Your task to perform on an android device: Search for the best running shoes on Nike. Image 0: 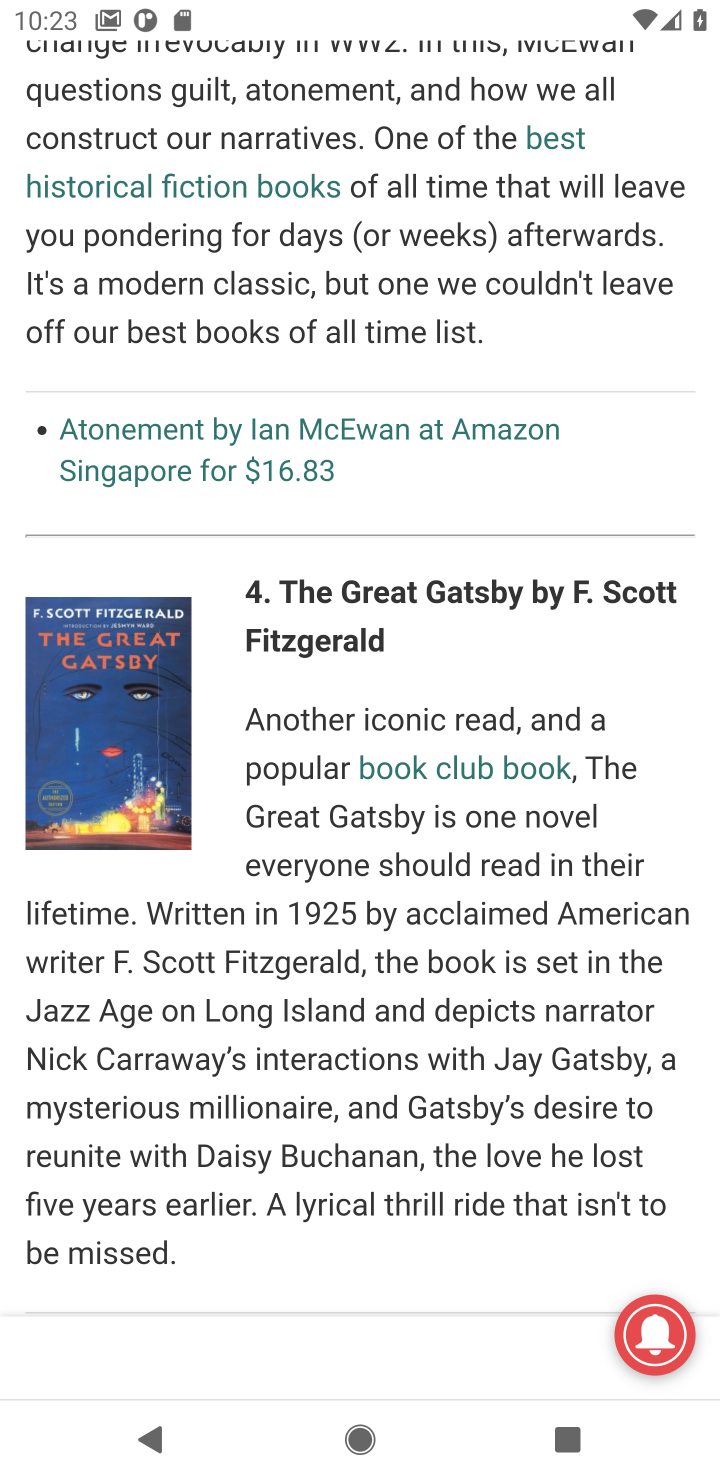
Step 0: press home button
Your task to perform on an android device: Search for the best running shoes on Nike. Image 1: 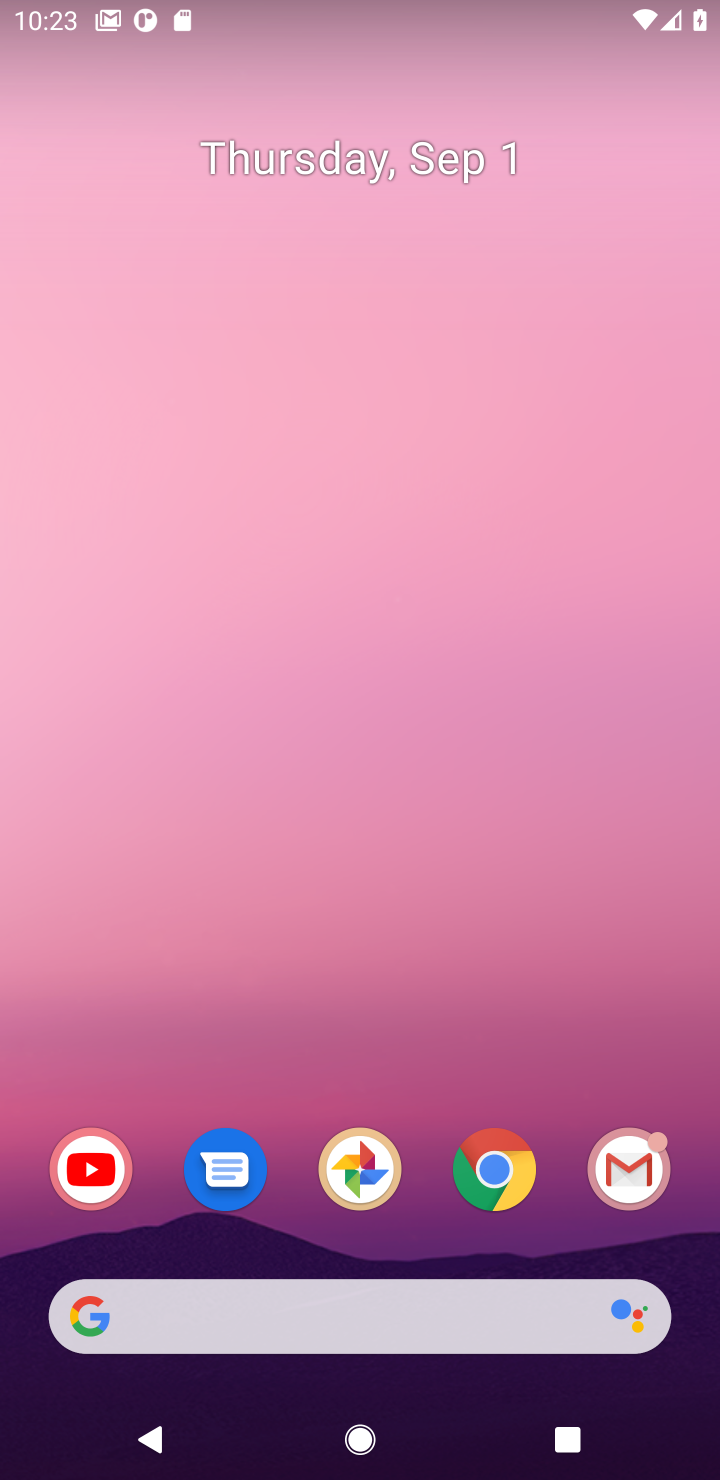
Step 1: click (421, 15)
Your task to perform on an android device: Search for the best running shoes on Nike. Image 2: 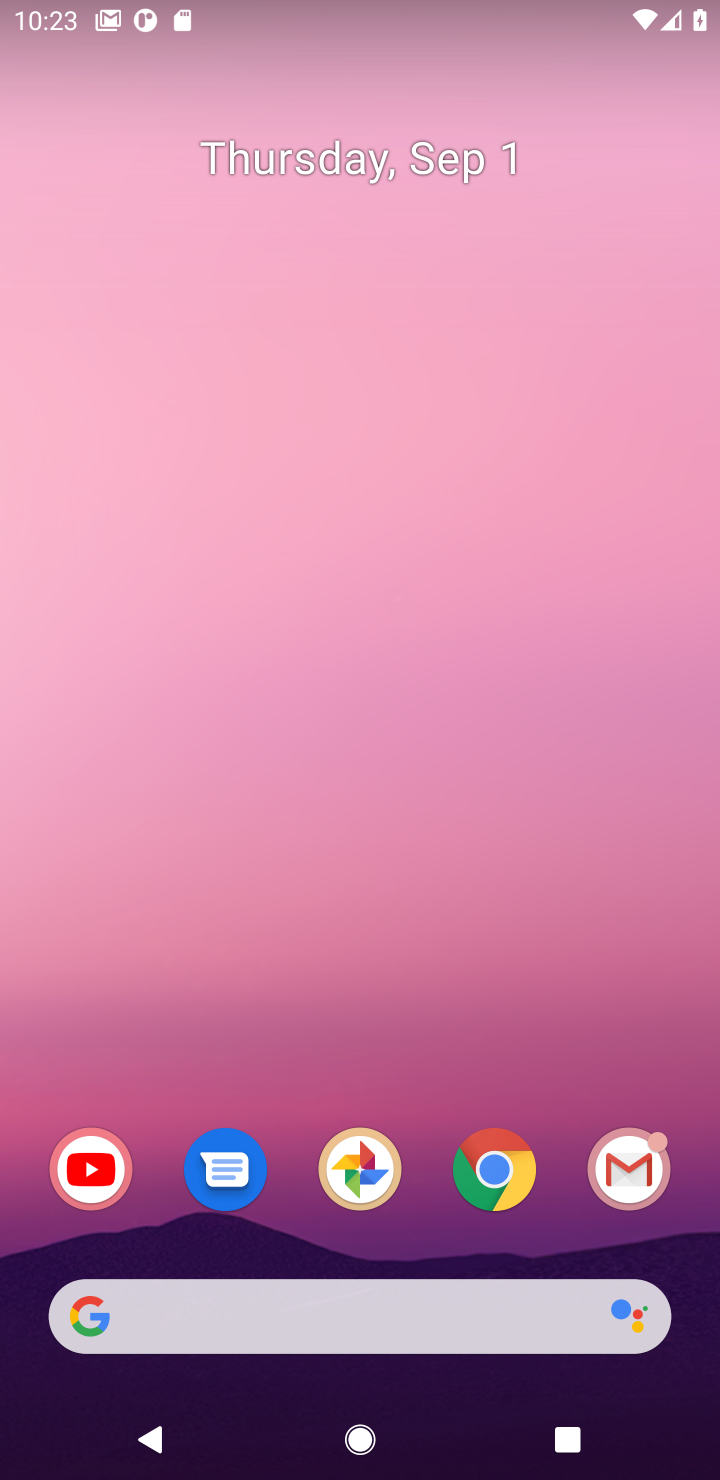
Step 2: drag from (425, 1130) to (463, 27)
Your task to perform on an android device: Search for the best running shoes on Nike. Image 3: 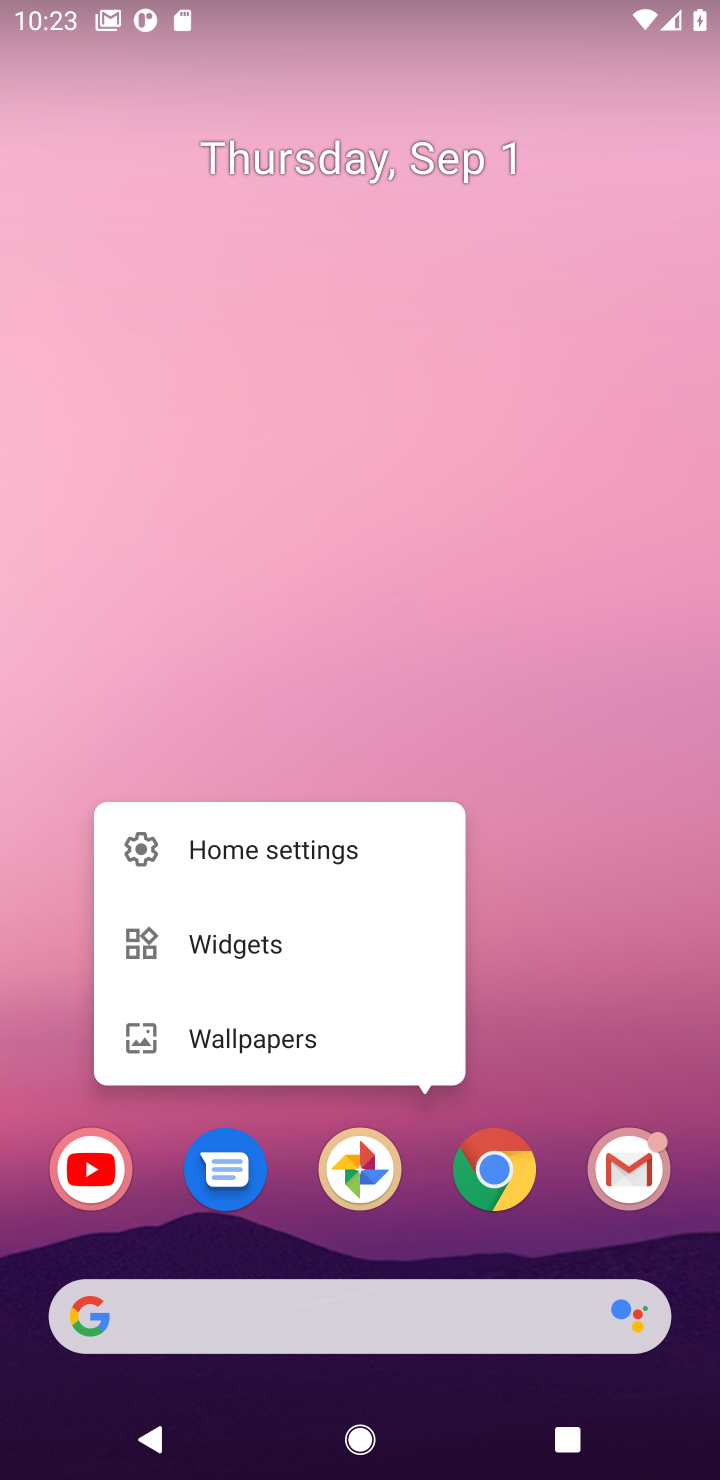
Step 3: click (565, 1019)
Your task to perform on an android device: Search for the best running shoes on Nike. Image 4: 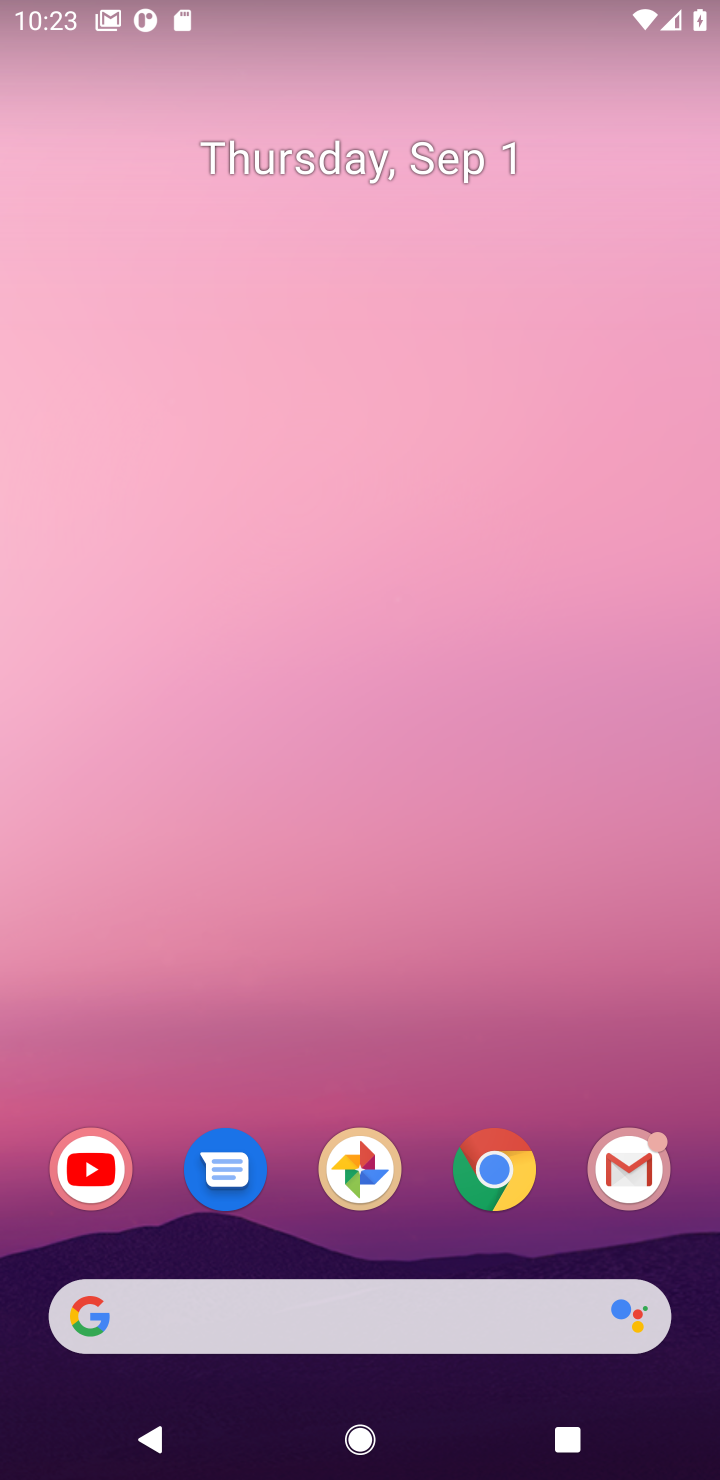
Step 4: drag from (453, 635) to (475, 72)
Your task to perform on an android device: Search for the best running shoes on Nike. Image 5: 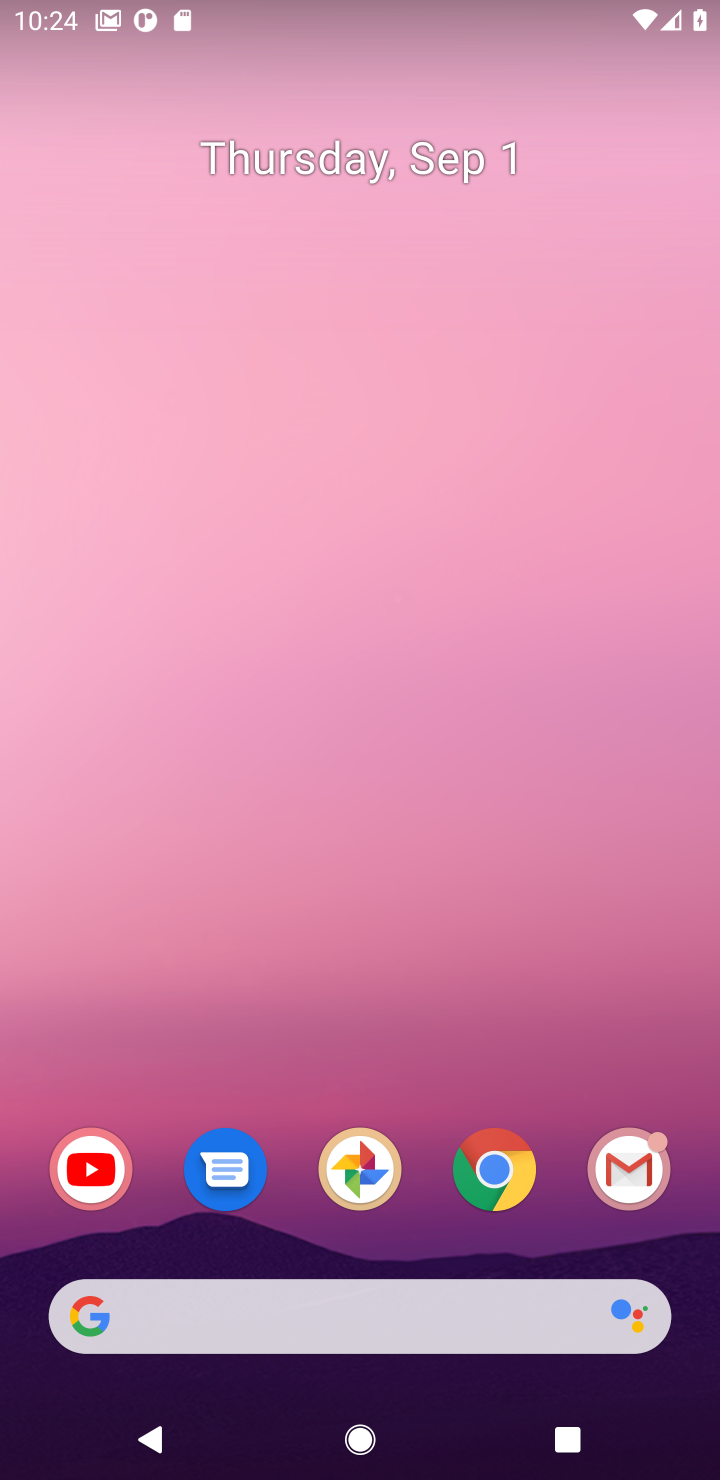
Step 5: drag from (430, 1154) to (445, 45)
Your task to perform on an android device: Search for the best running shoes on Nike. Image 6: 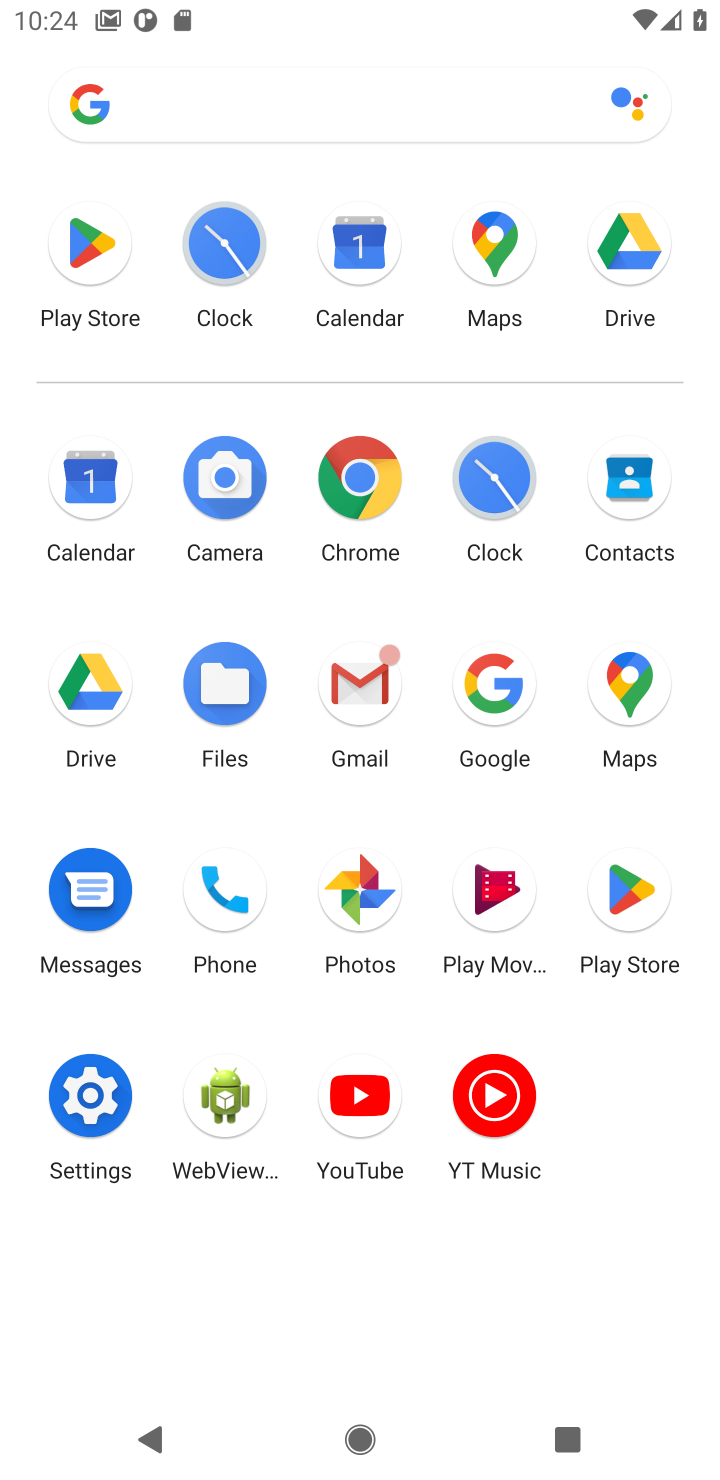
Step 6: click (355, 470)
Your task to perform on an android device: Search for the best running shoes on Nike. Image 7: 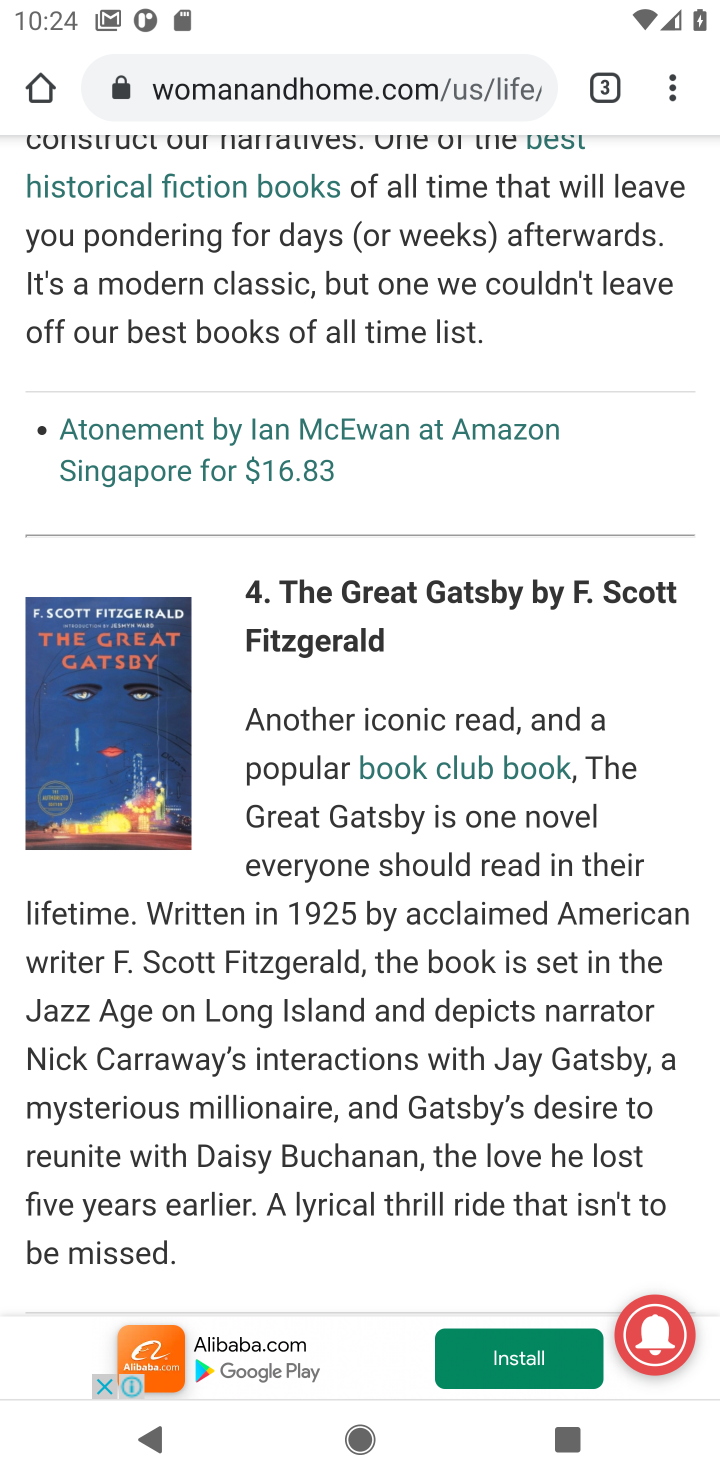
Step 7: click (277, 77)
Your task to perform on an android device: Search for the best running shoes on Nike. Image 8: 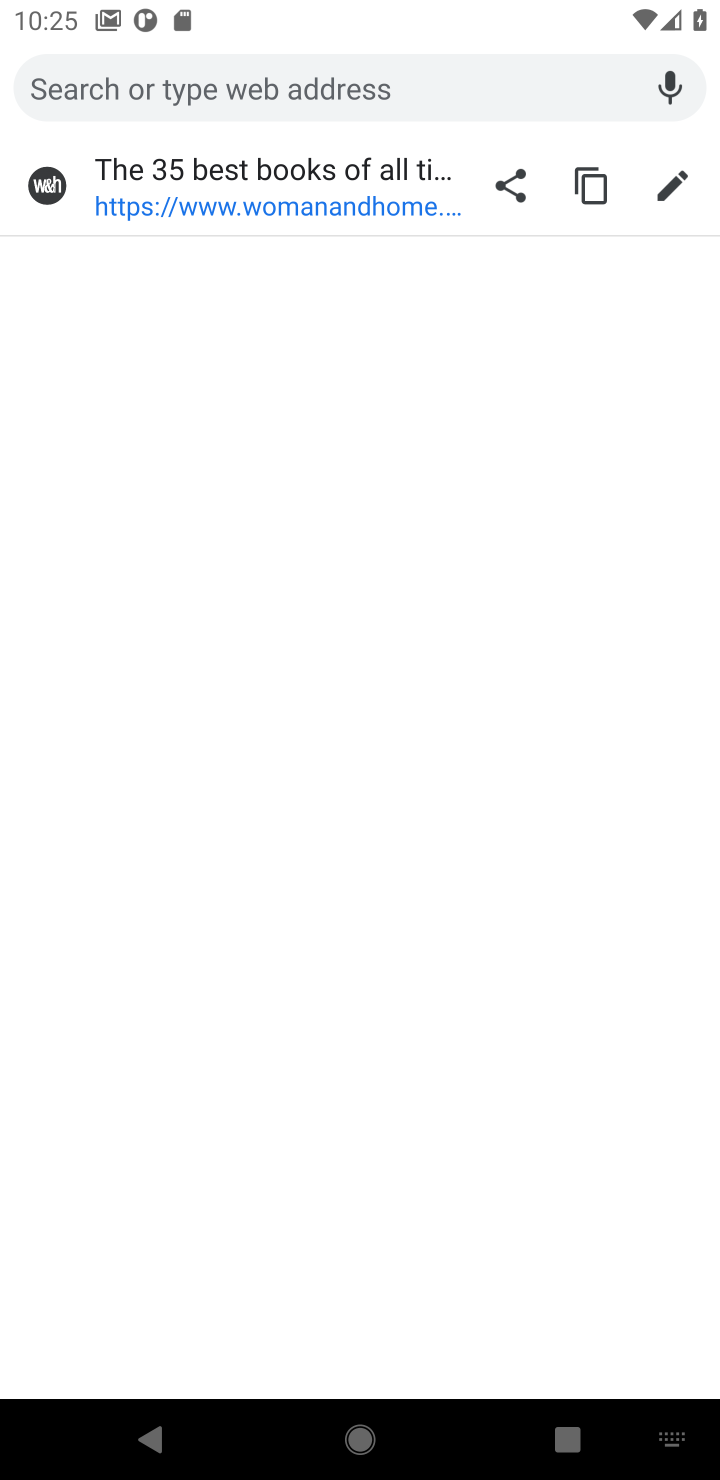
Step 8: type "best running shoes on Nike"
Your task to perform on an android device: Search for the best running shoes on Nike. Image 9: 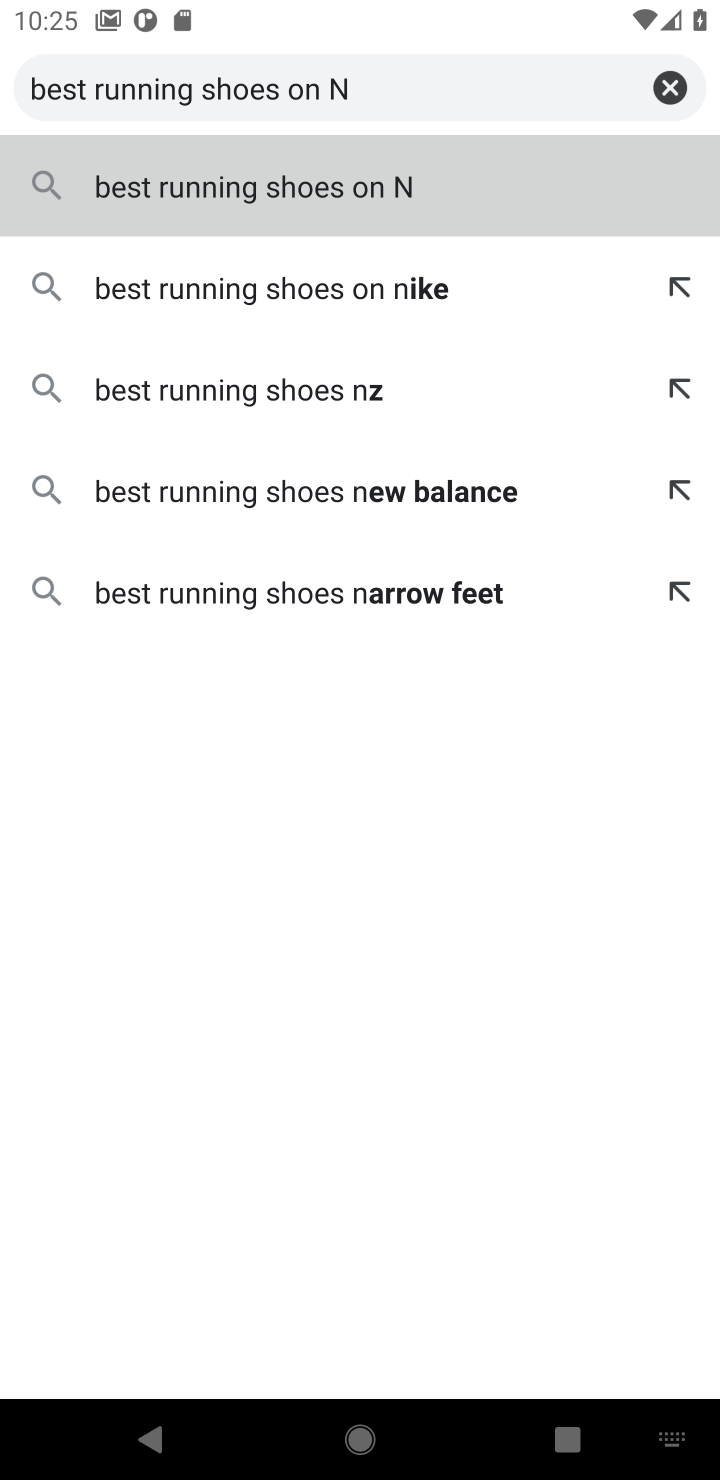
Step 9: type ""
Your task to perform on an android device: Search for the best running shoes on Nike. Image 10: 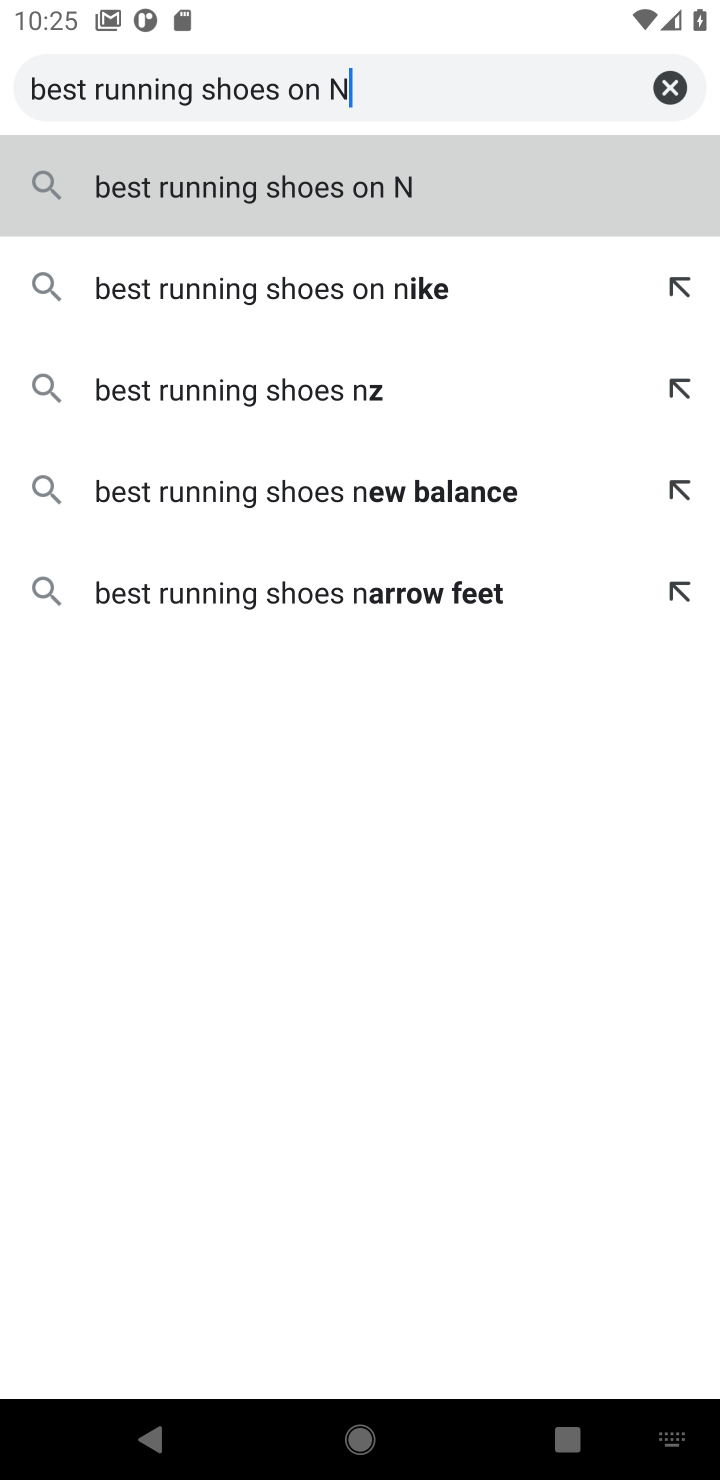
Step 10: type "ike"
Your task to perform on an android device: Search for the best running shoes on Nike. Image 11: 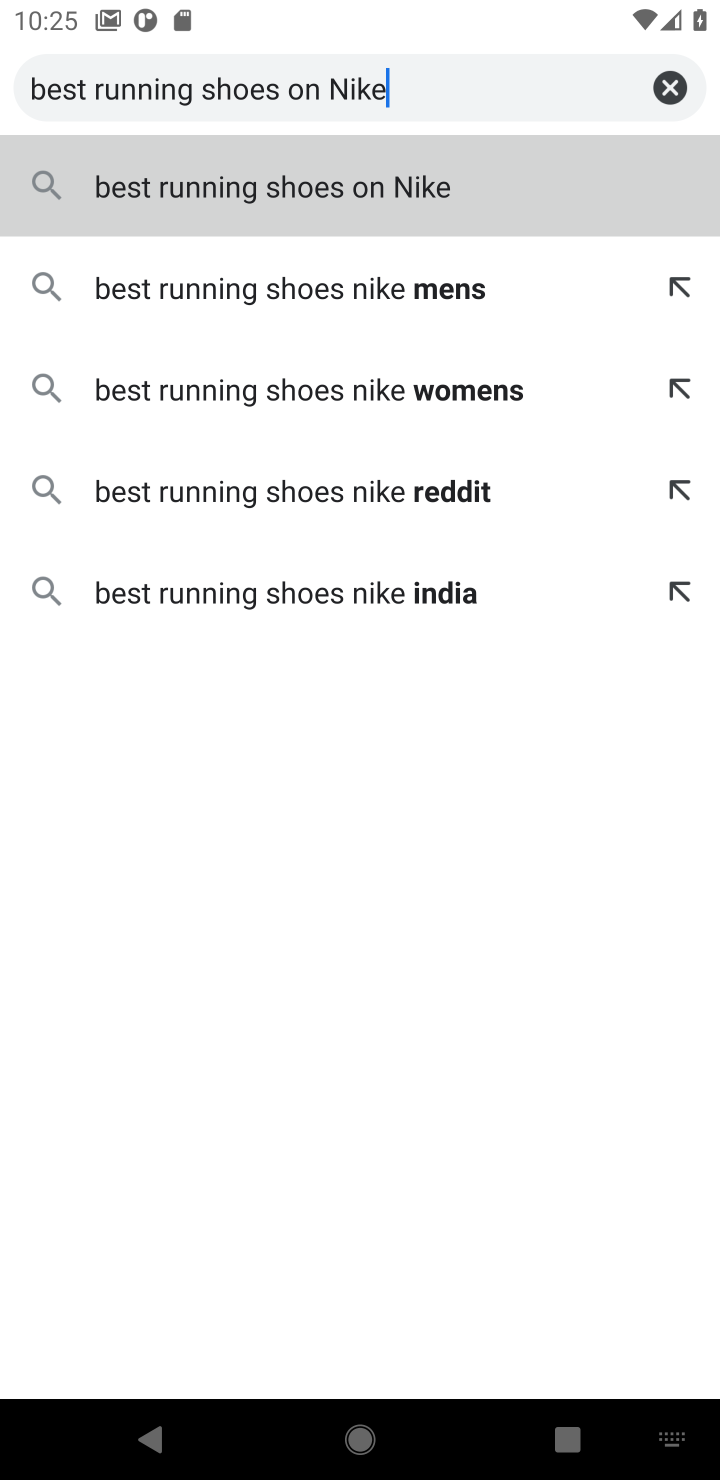
Step 11: type ""
Your task to perform on an android device: Search for the best running shoes on Nike. Image 12: 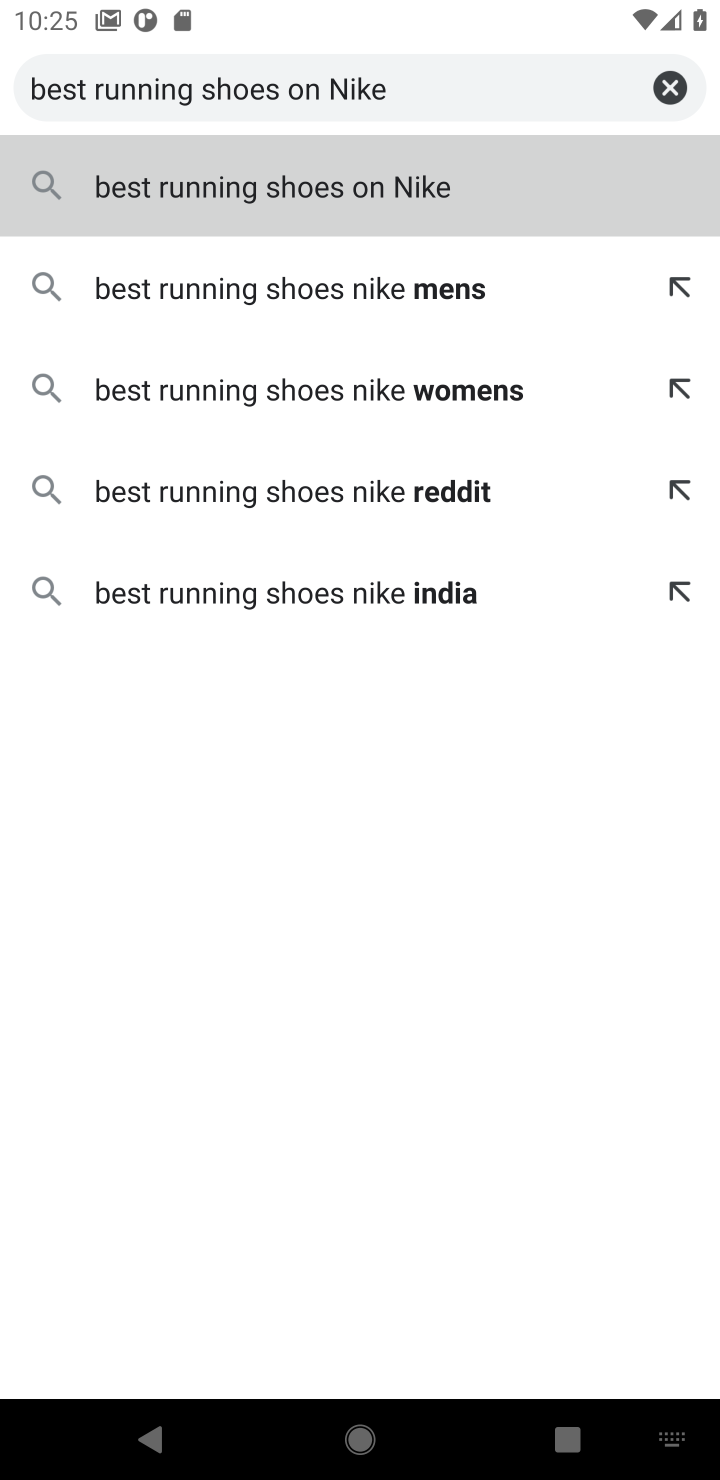
Step 12: click (342, 197)
Your task to perform on an android device: Search for the best running shoes on Nike. Image 13: 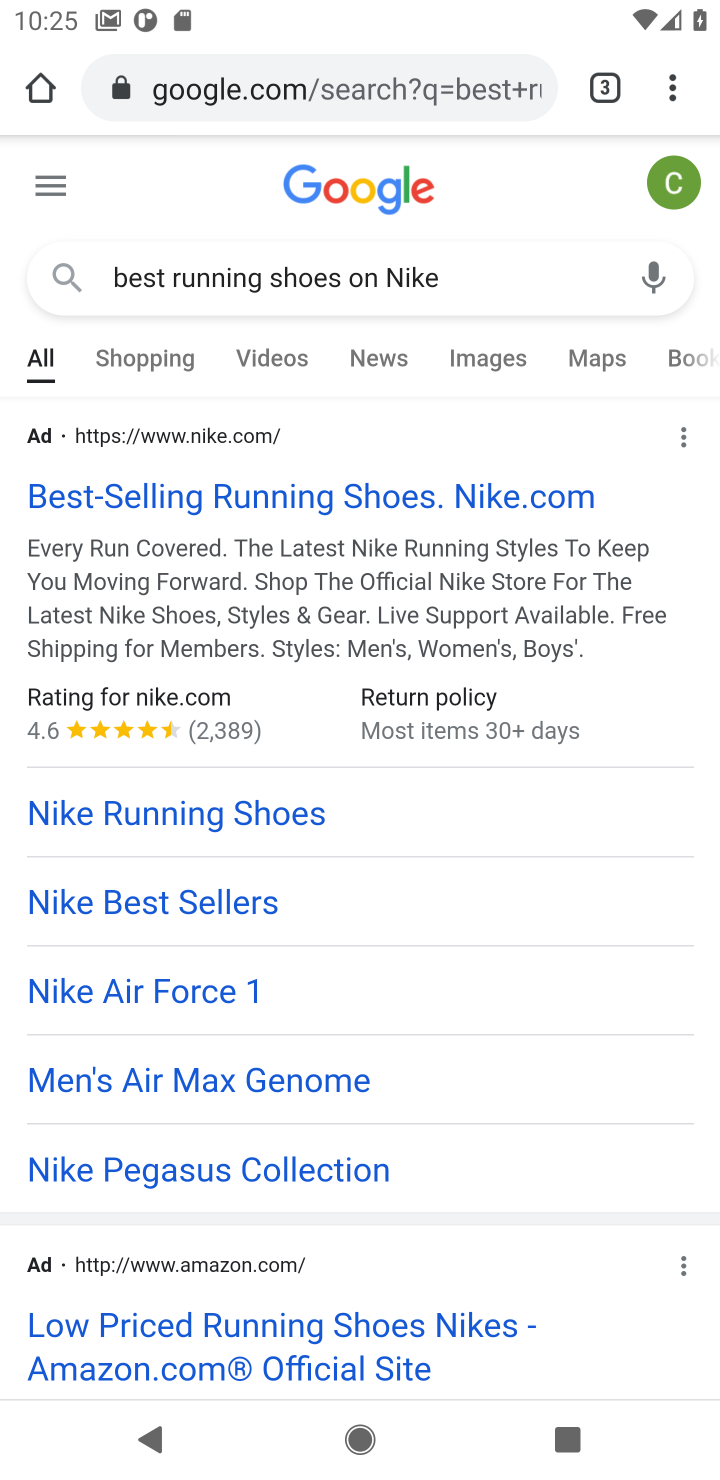
Step 13: click (291, 503)
Your task to perform on an android device: Search for the best running shoes on Nike. Image 14: 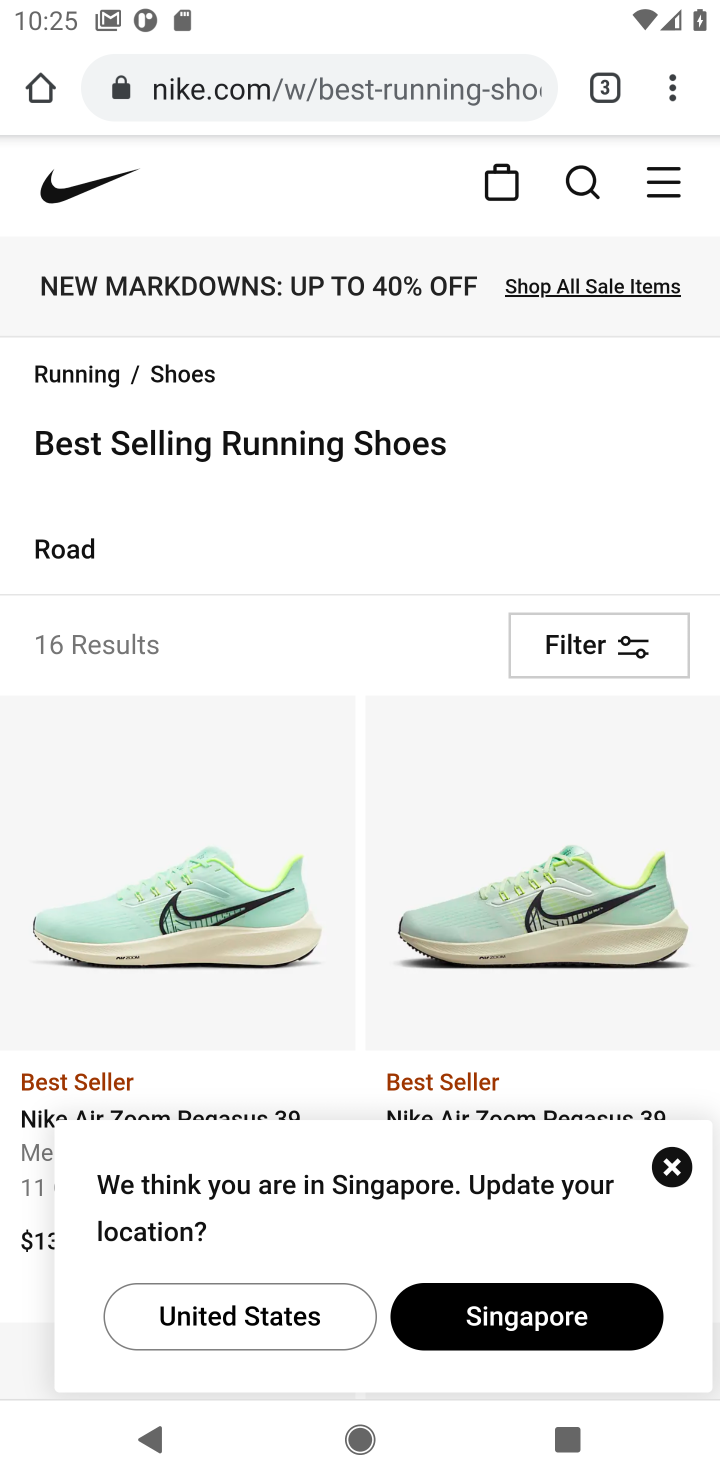
Step 14: click (673, 1161)
Your task to perform on an android device: Search for the best running shoes on Nike. Image 15: 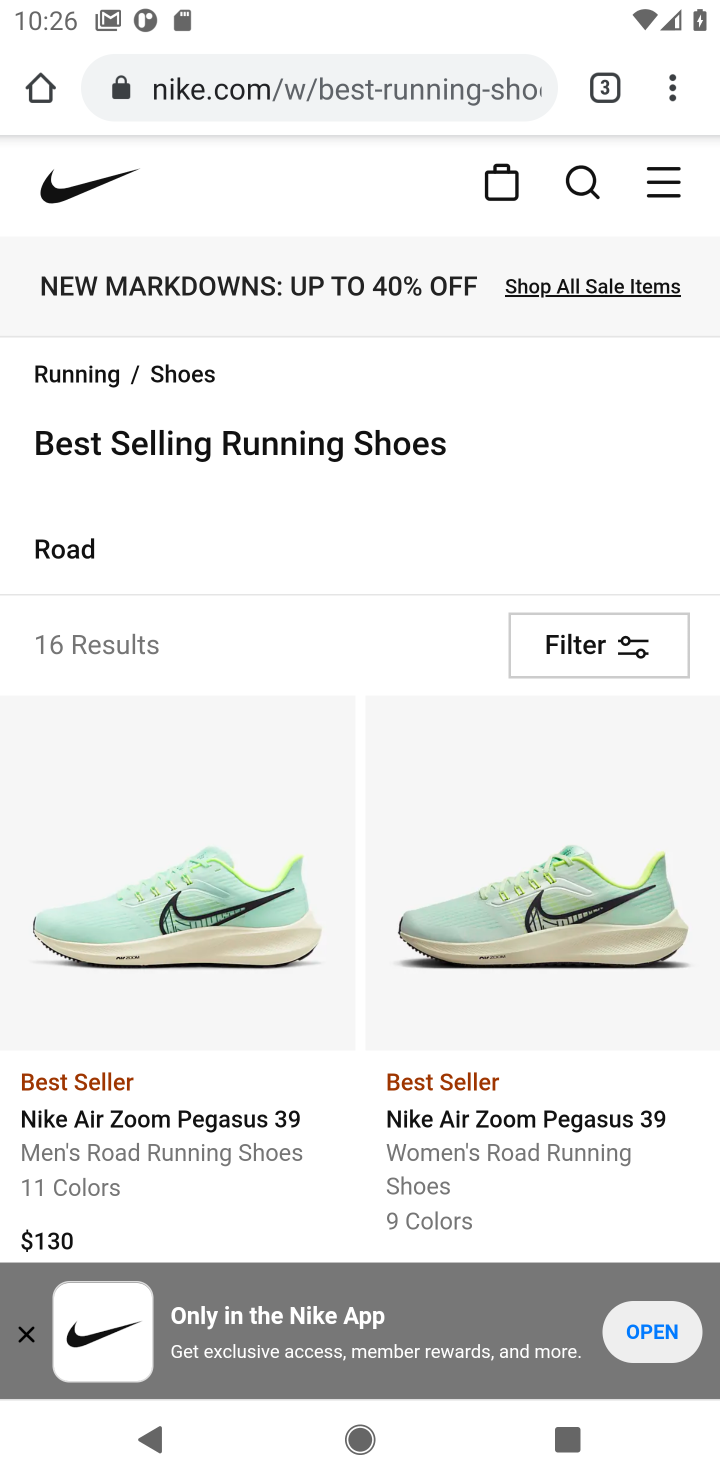
Step 15: task complete